Your task to perform on an android device: Show me some nice wallpapers for my phone Image 0: 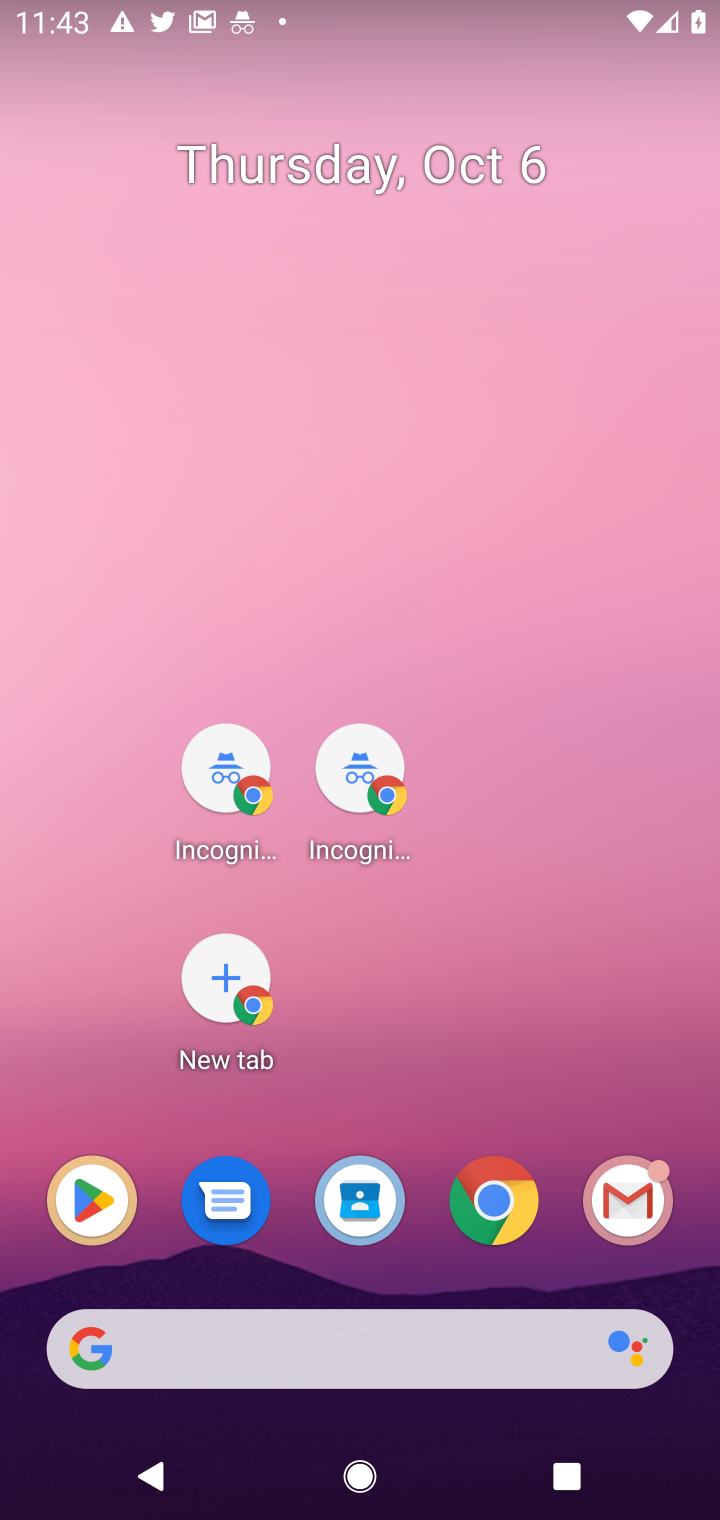
Step 0: click (492, 1198)
Your task to perform on an android device: Show me some nice wallpapers for my phone Image 1: 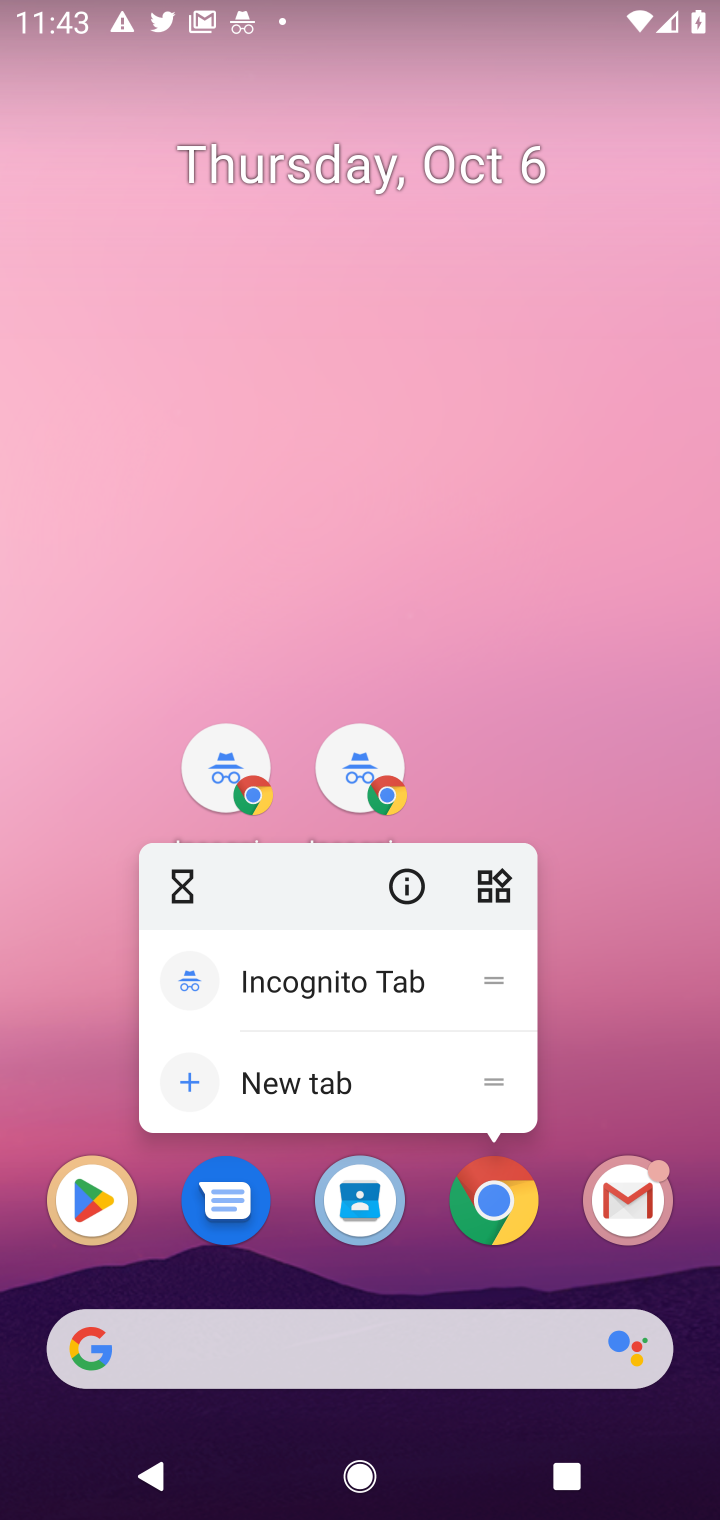
Step 1: press back button
Your task to perform on an android device: Show me some nice wallpapers for my phone Image 2: 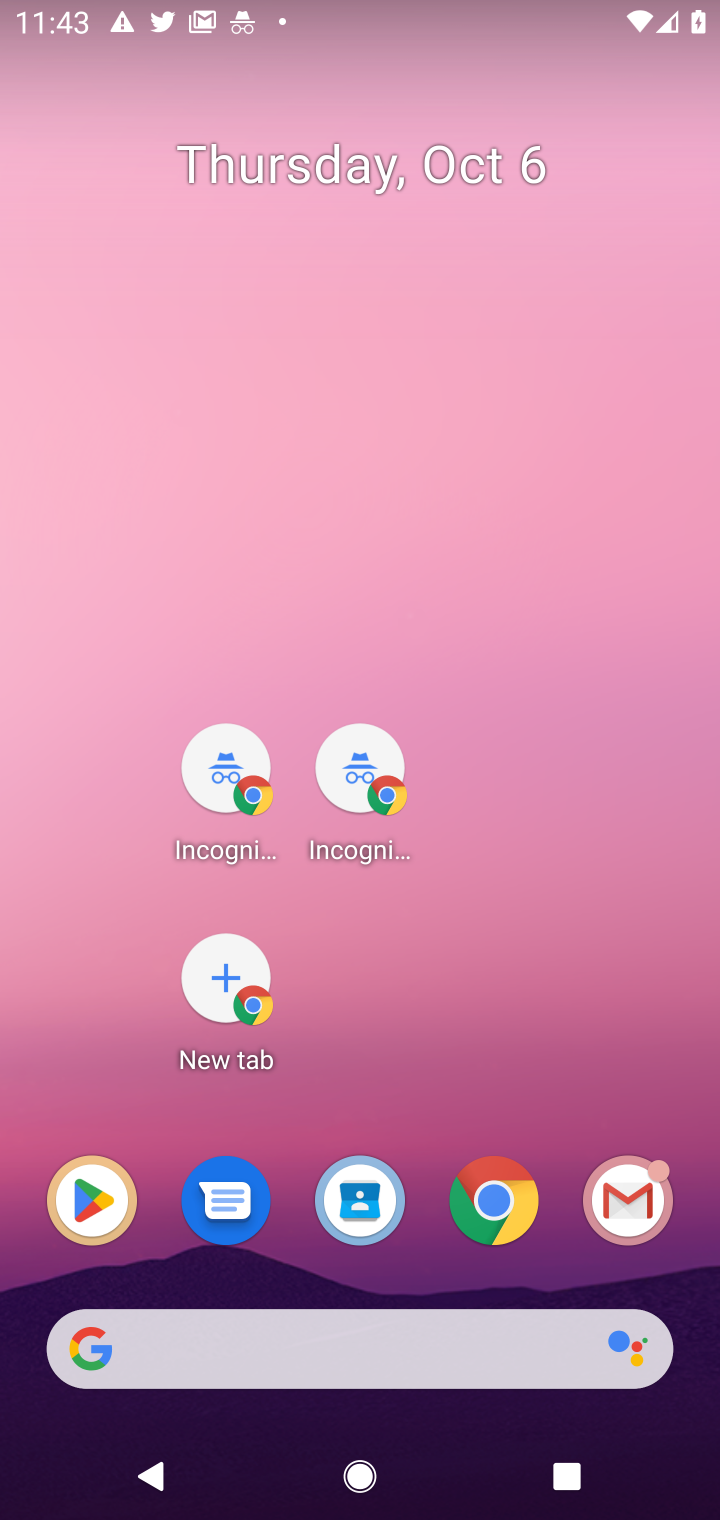
Step 2: press back button
Your task to perform on an android device: Show me some nice wallpapers for my phone Image 3: 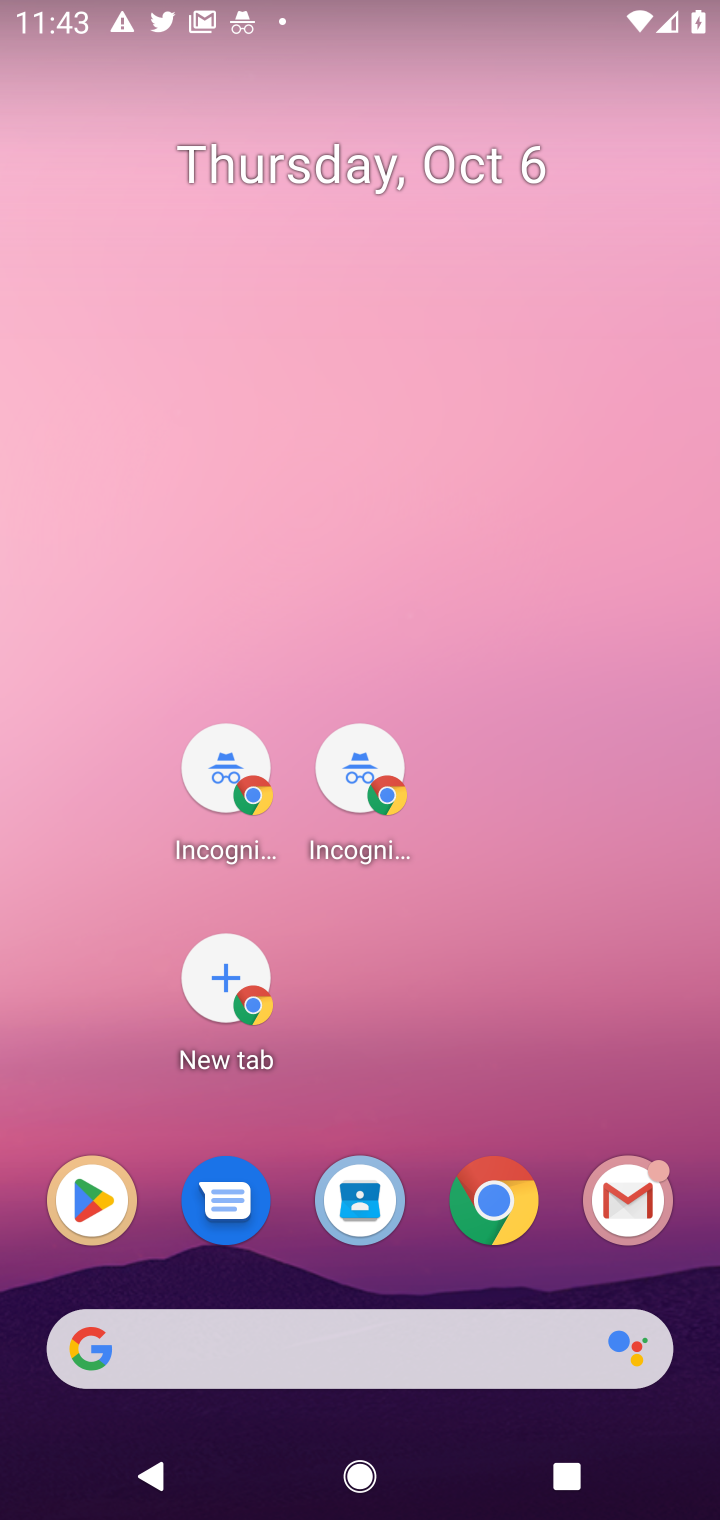
Step 3: press home button
Your task to perform on an android device: Show me some nice wallpapers for my phone Image 4: 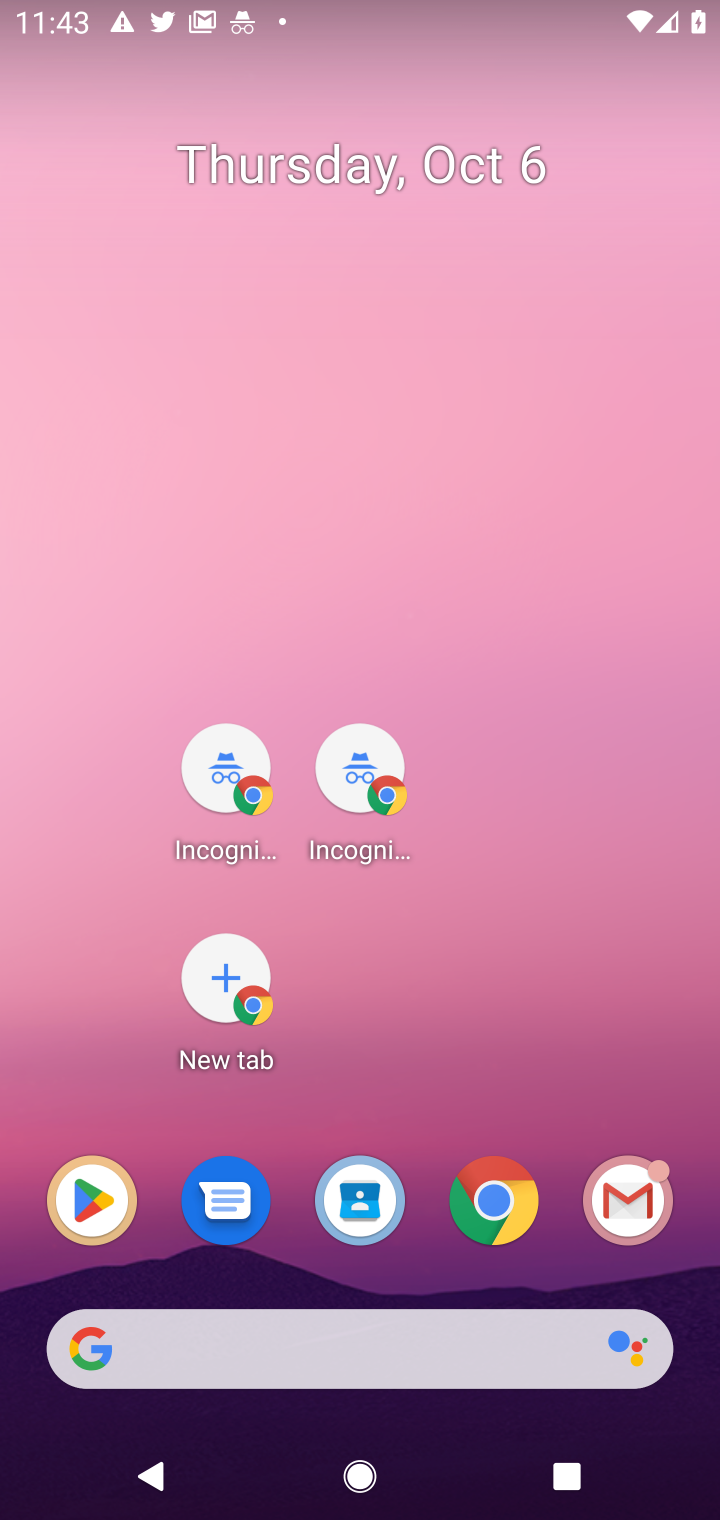
Step 4: press back button
Your task to perform on an android device: Show me some nice wallpapers for my phone Image 5: 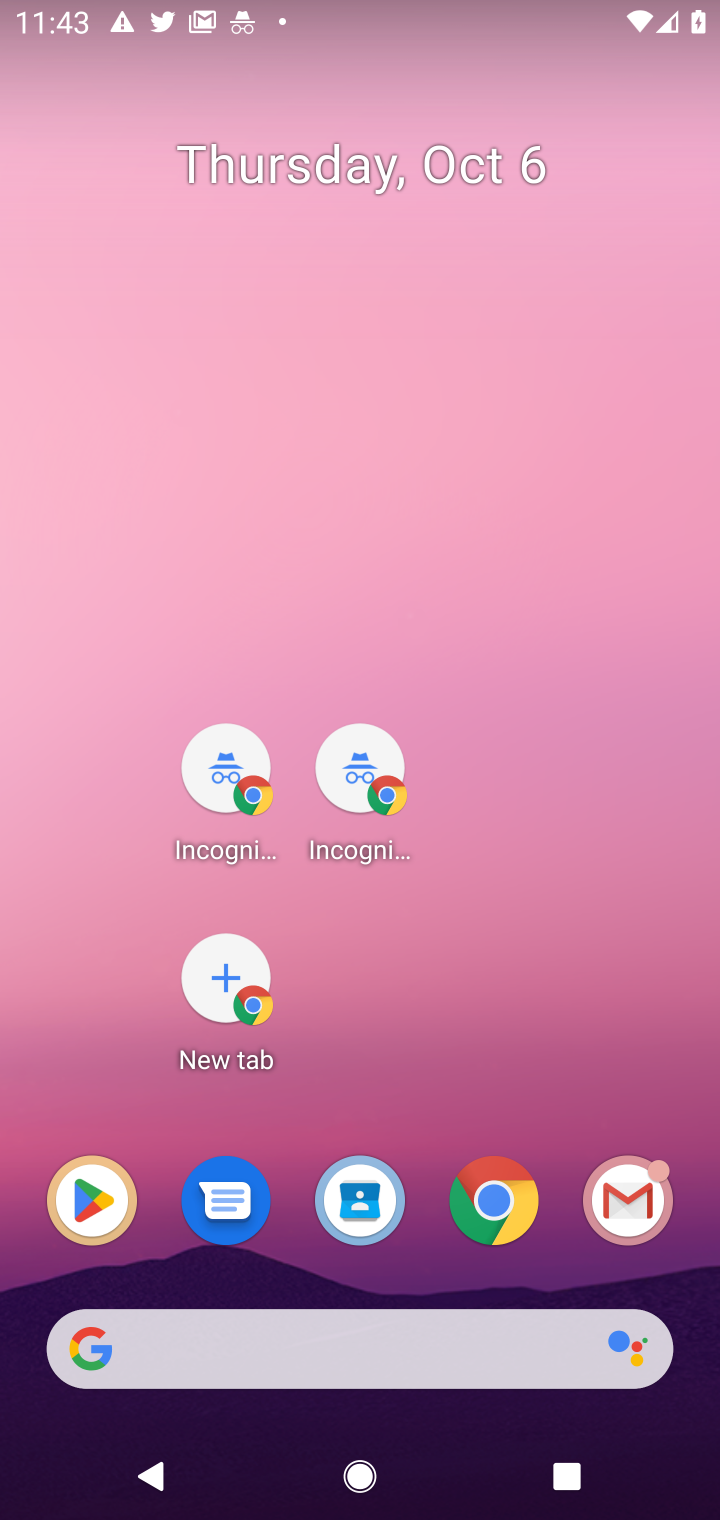
Step 5: click (518, 1189)
Your task to perform on an android device: Show me some nice wallpapers for my phone Image 6: 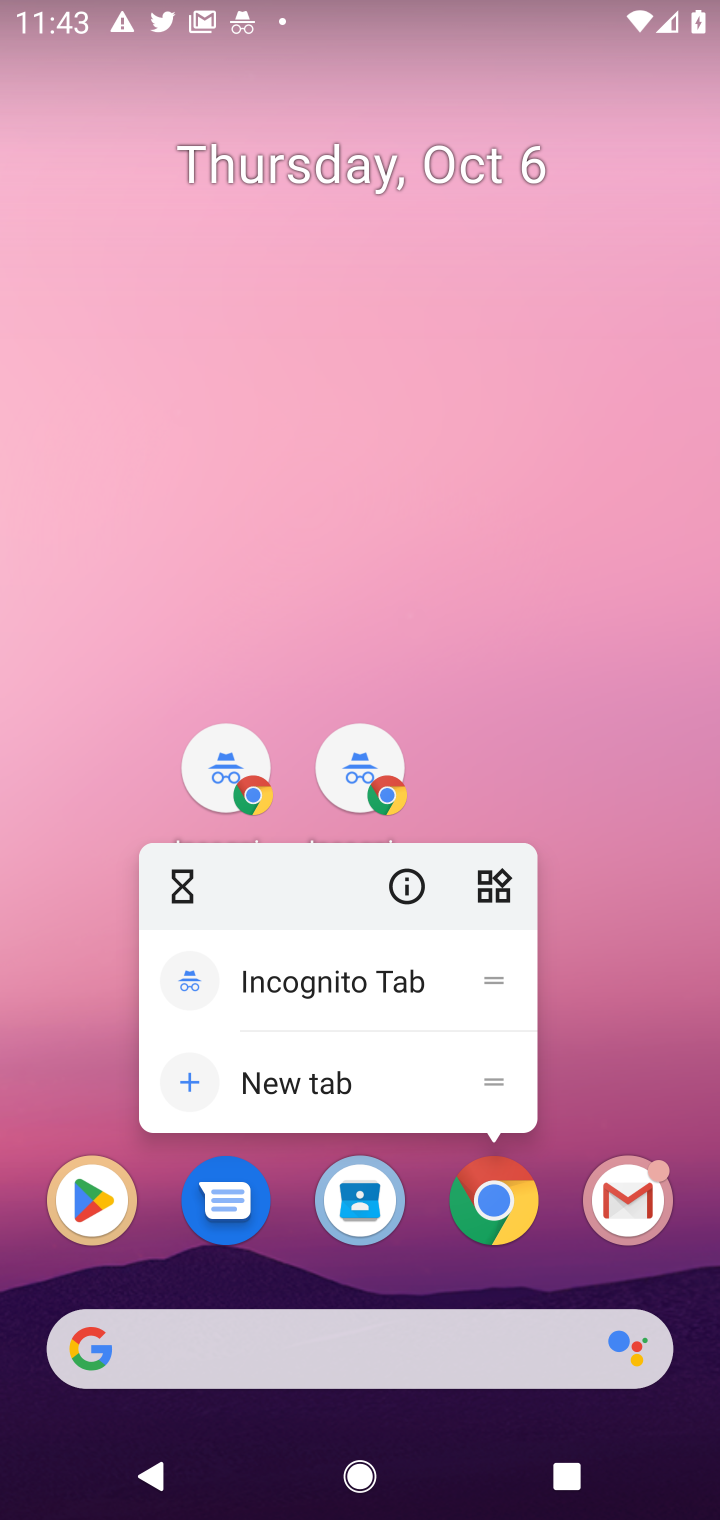
Step 6: press back button
Your task to perform on an android device: Show me some nice wallpapers for my phone Image 7: 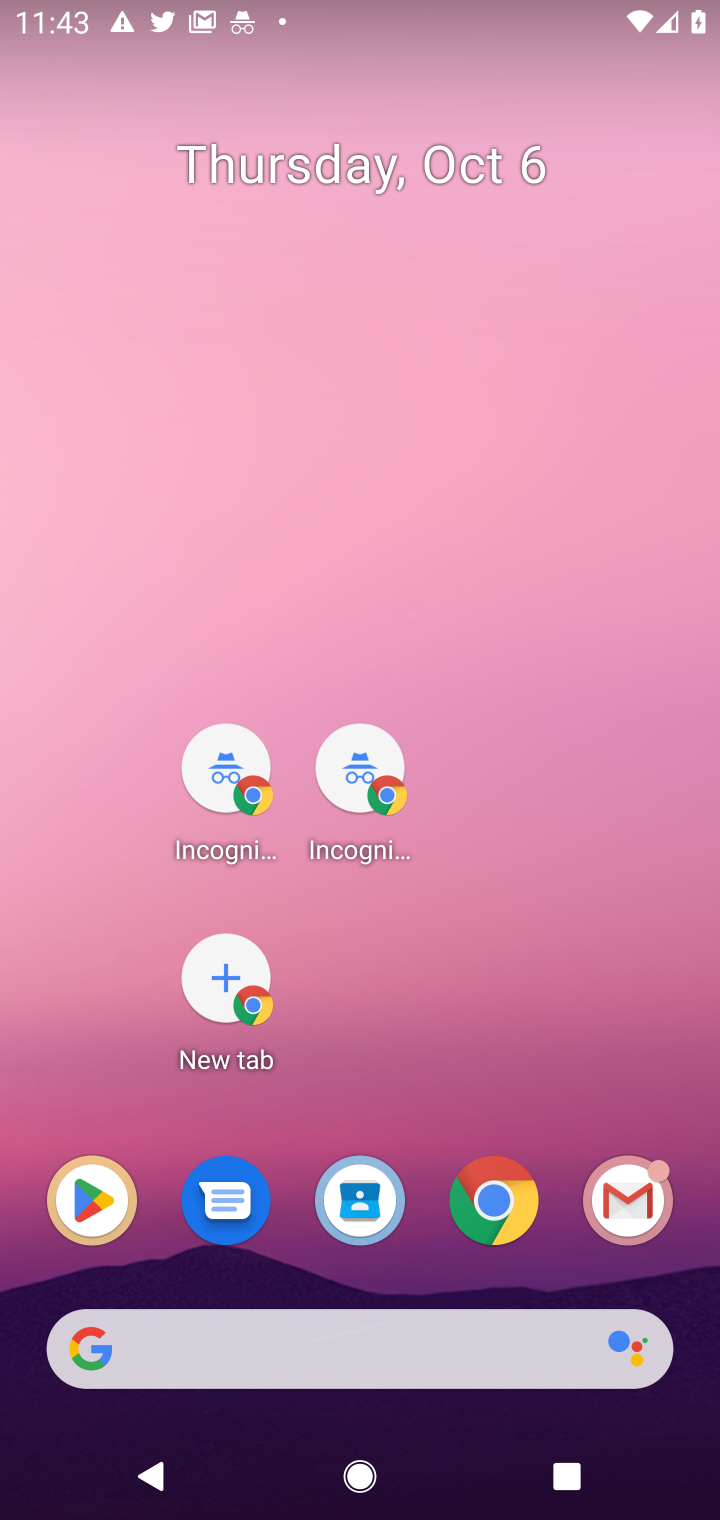
Step 7: press back button
Your task to perform on an android device: Show me some nice wallpapers for my phone Image 8: 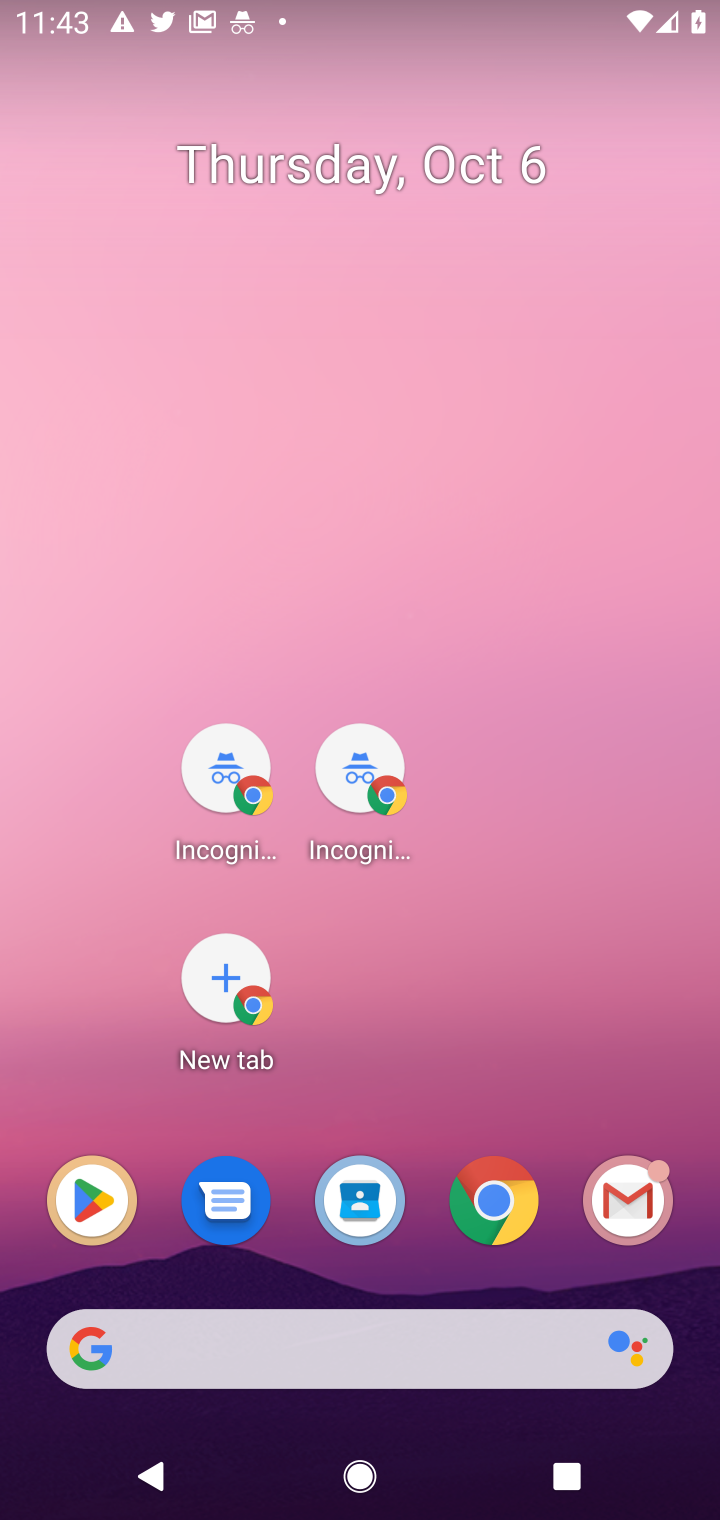
Step 8: press back button
Your task to perform on an android device: Show me some nice wallpapers for my phone Image 9: 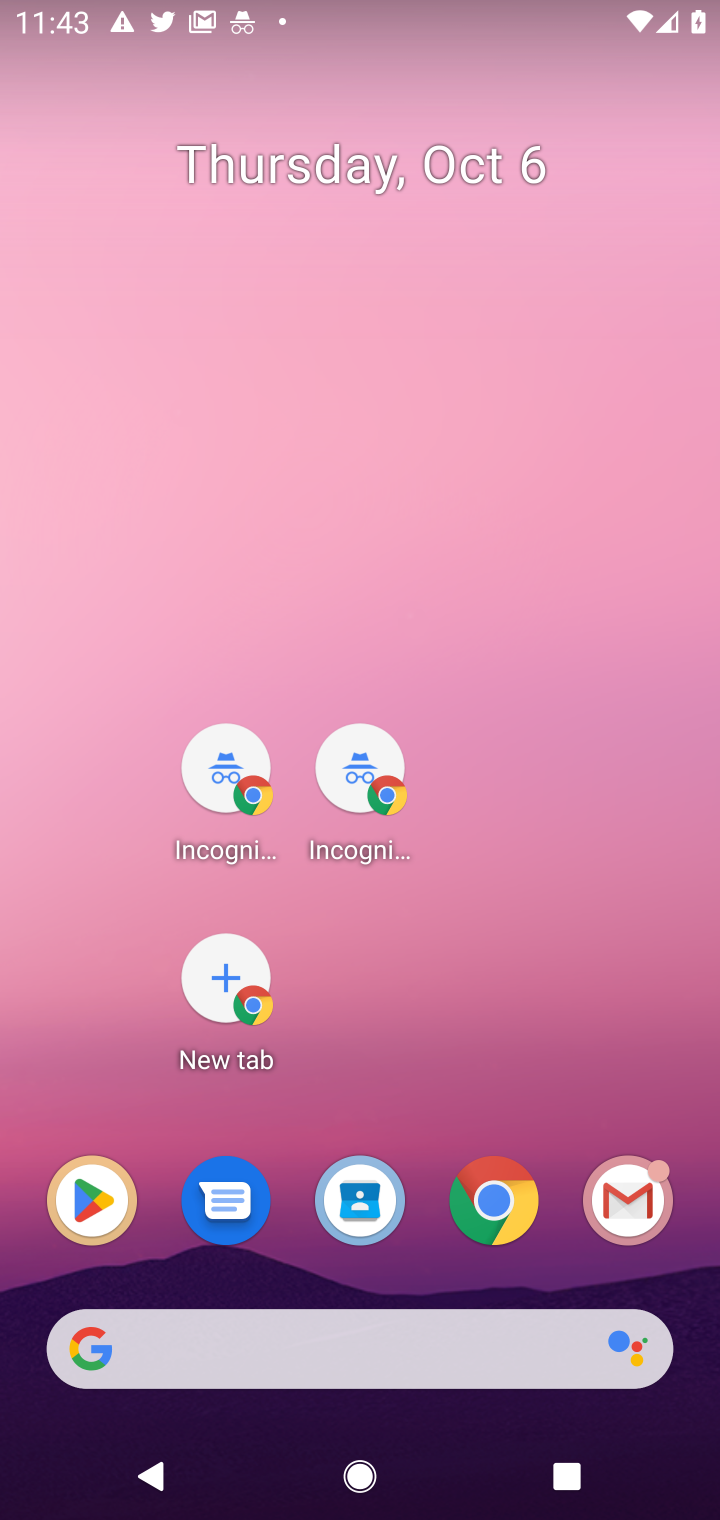
Step 9: click (529, 1190)
Your task to perform on an android device: Show me some nice wallpapers for my phone Image 10: 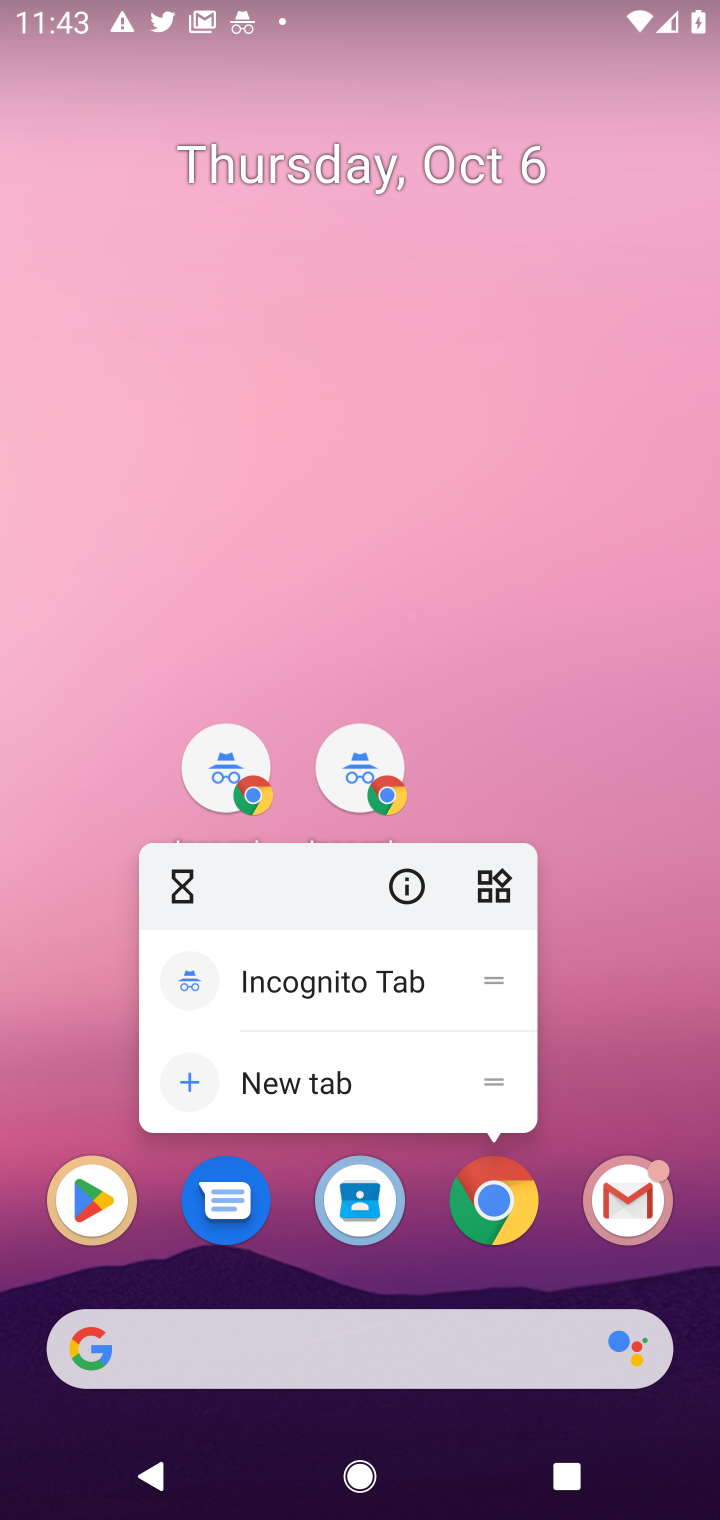
Step 10: click (520, 1190)
Your task to perform on an android device: Show me some nice wallpapers for my phone Image 11: 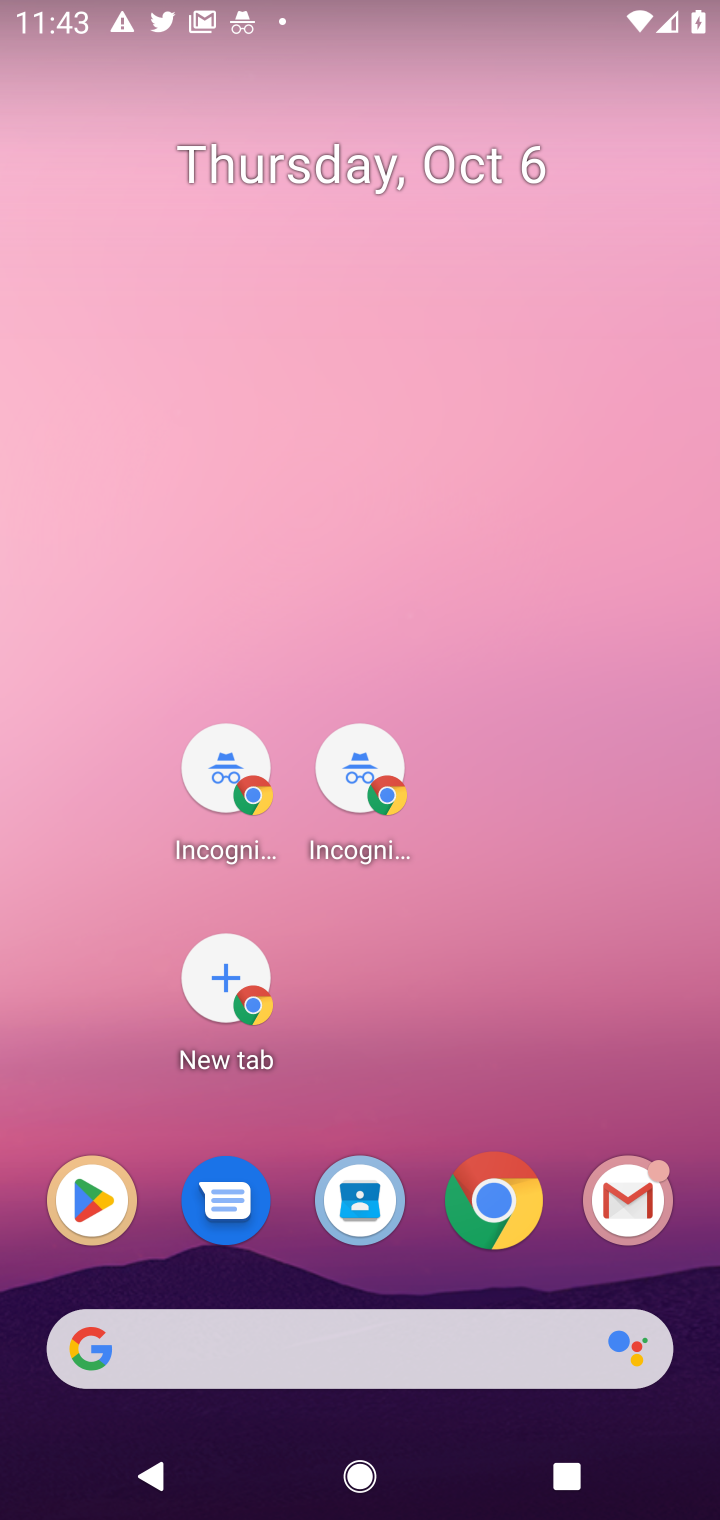
Step 11: press back button
Your task to perform on an android device: Show me some nice wallpapers for my phone Image 12: 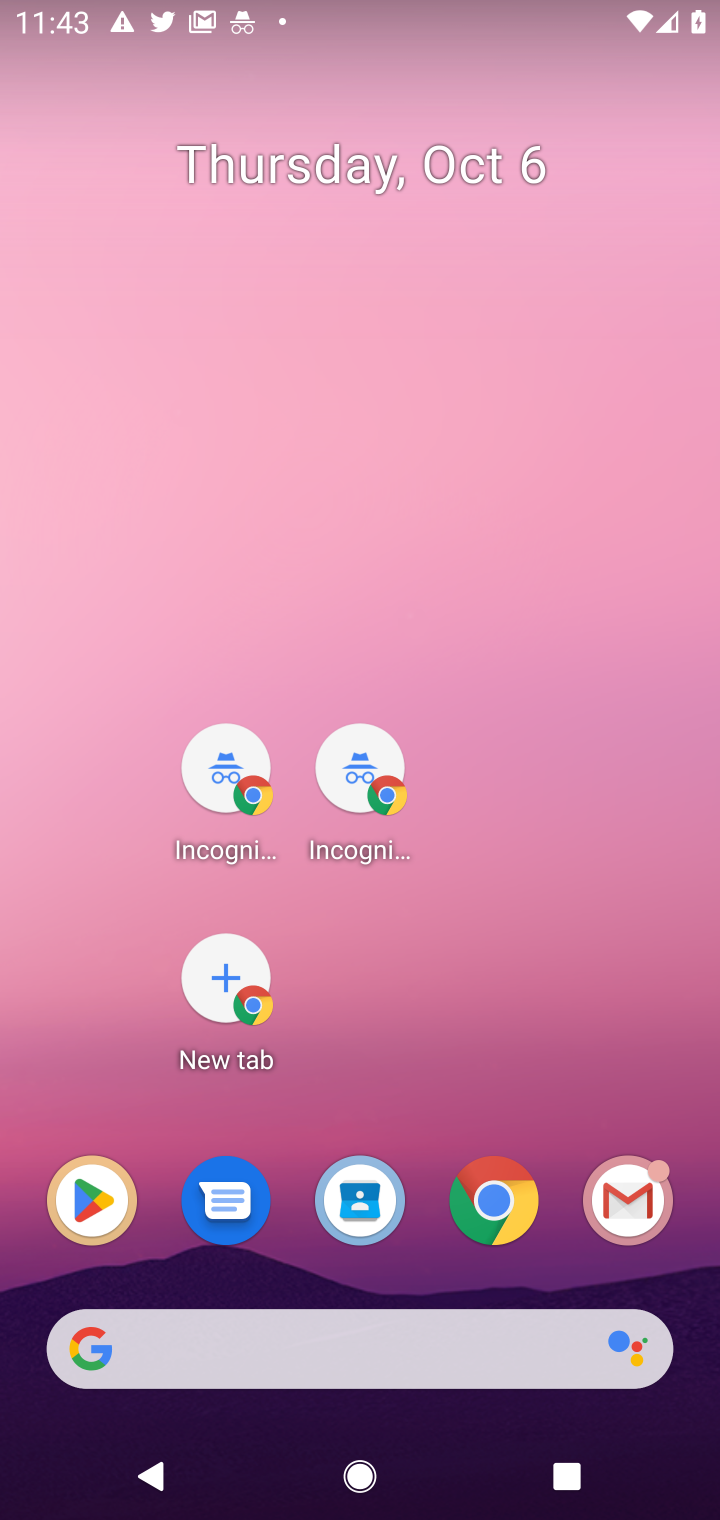
Step 12: press back button
Your task to perform on an android device: Show me some nice wallpapers for my phone Image 13: 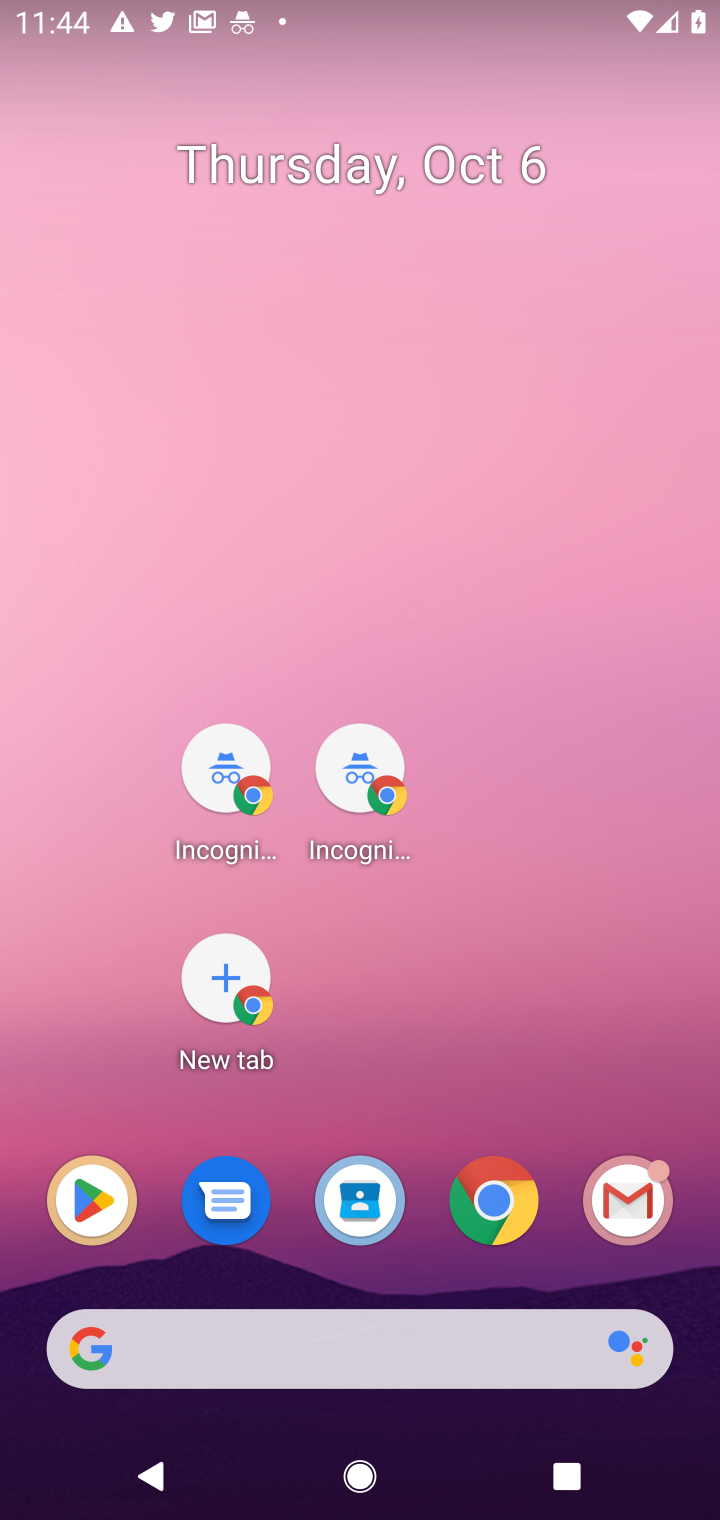
Step 13: press back button
Your task to perform on an android device: Show me some nice wallpapers for my phone Image 14: 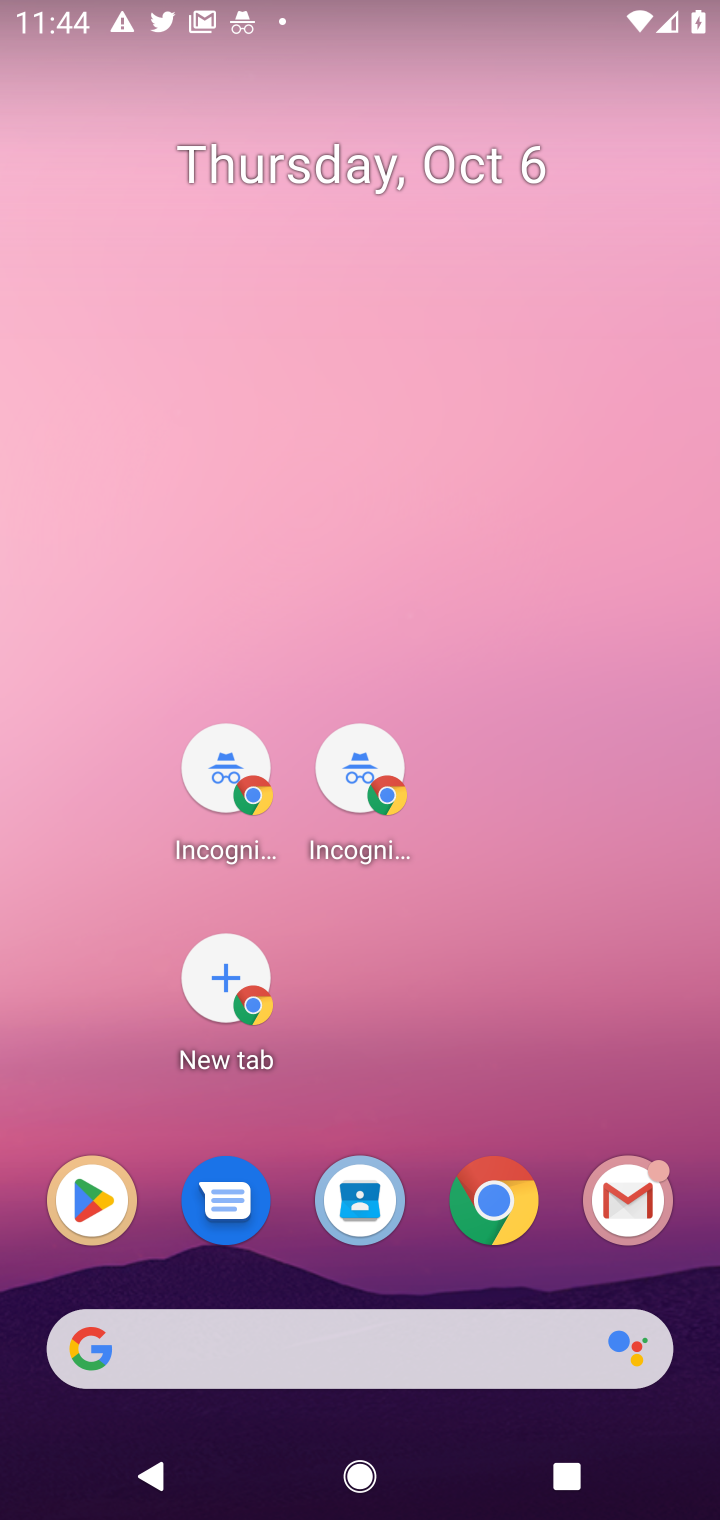
Step 14: press back button
Your task to perform on an android device: Show me some nice wallpapers for my phone Image 15: 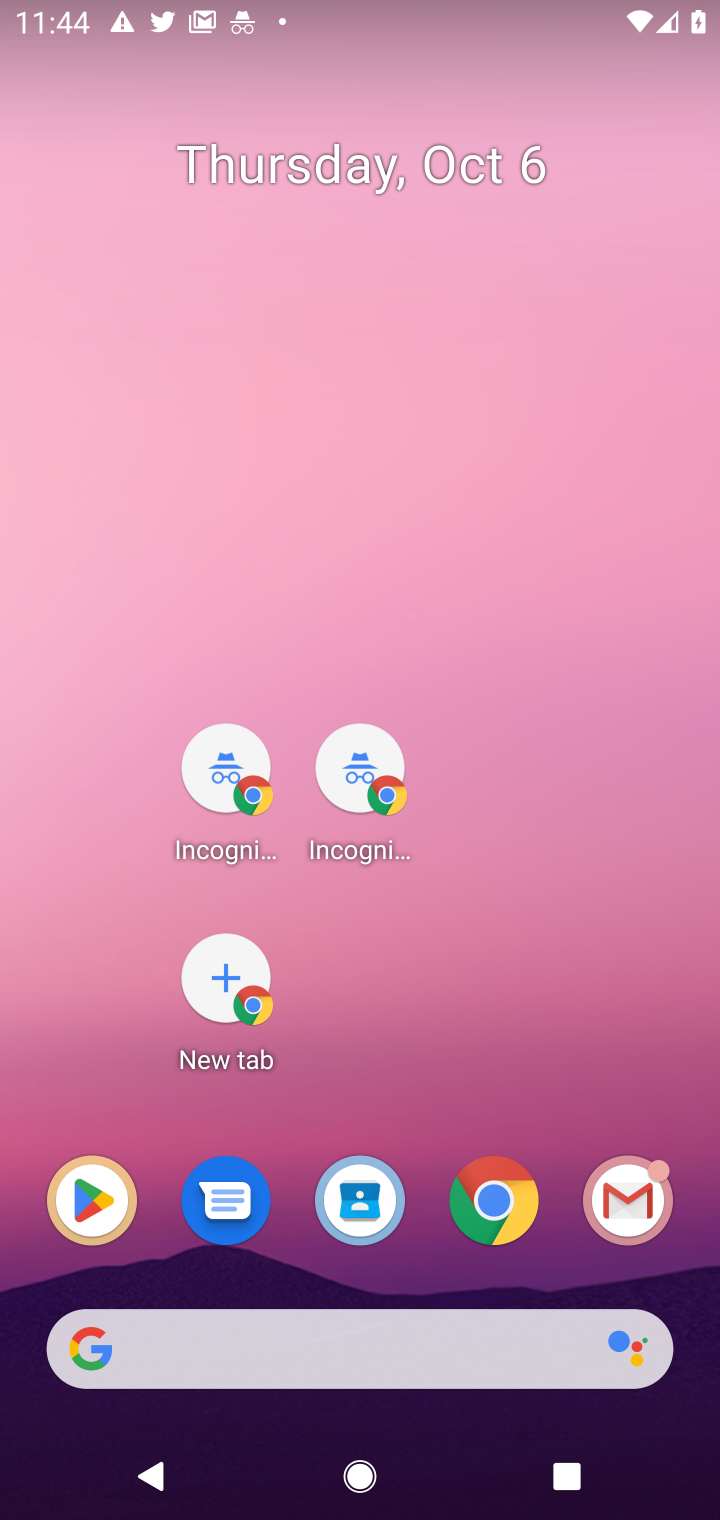
Step 15: click (509, 1194)
Your task to perform on an android device: Show me some nice wallpapers for my phone Image 16: 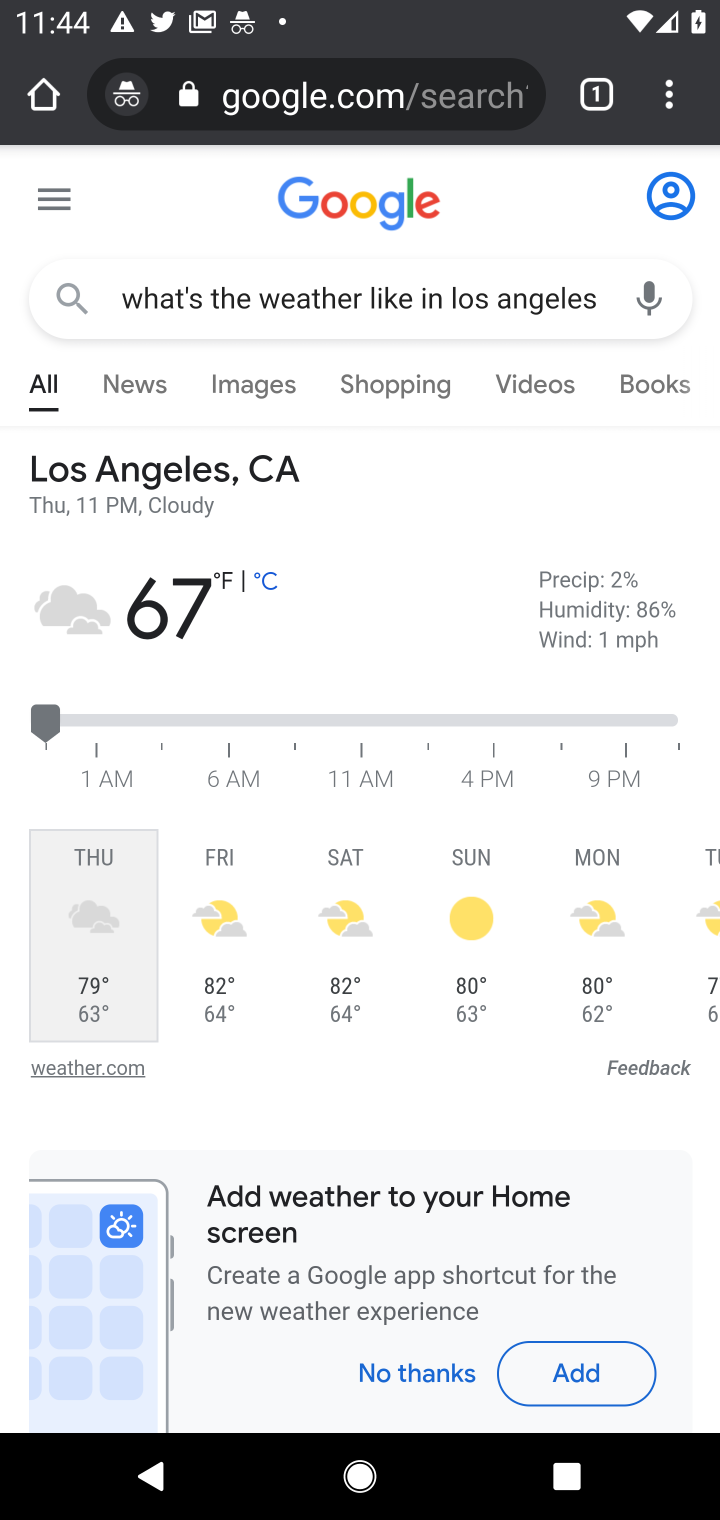
Step 16: click (317, 91)
Your task to perform on an android device: Show me some nice wallpapers for my phone Image 17: 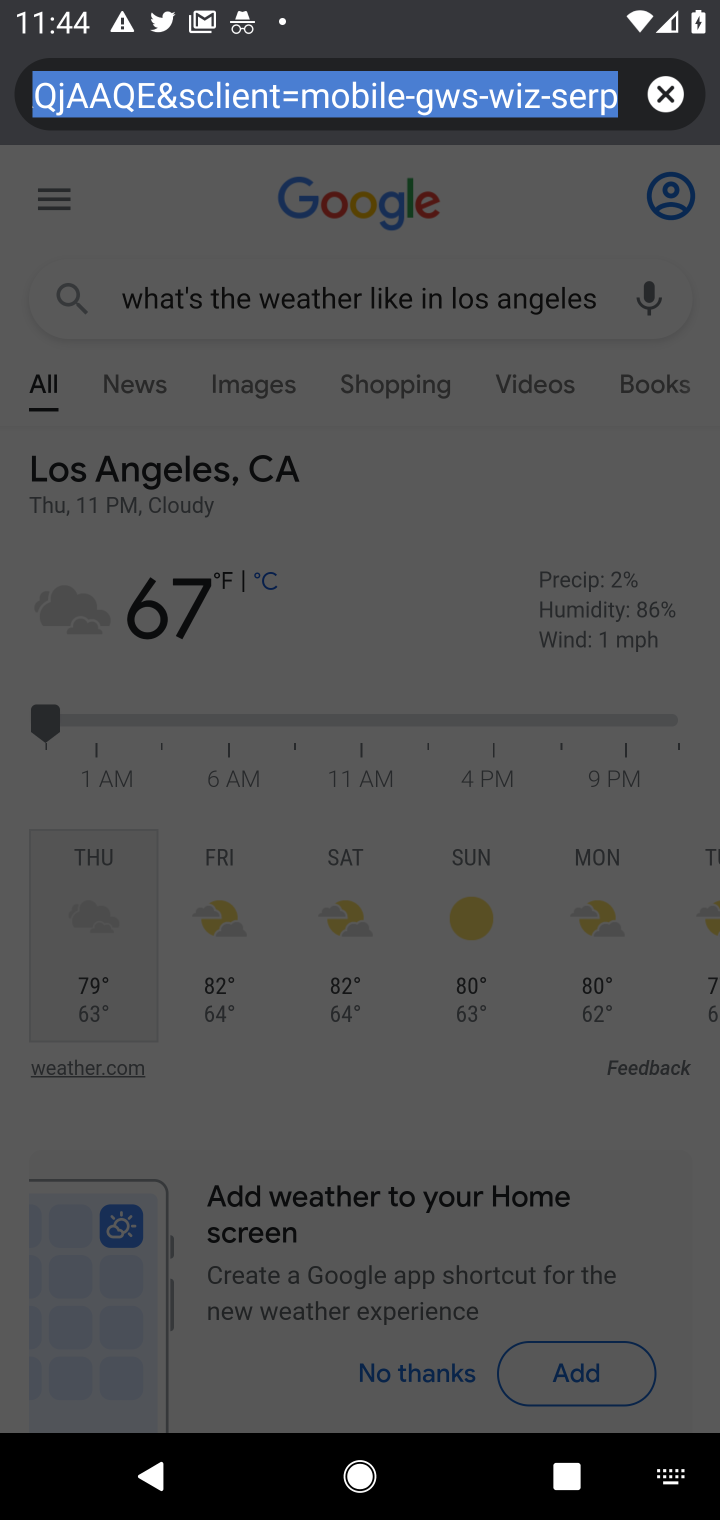
Step 17: click (664, 105)
Your task to perform on an android device: Show me some nice wallpapers for my phone Image 18: 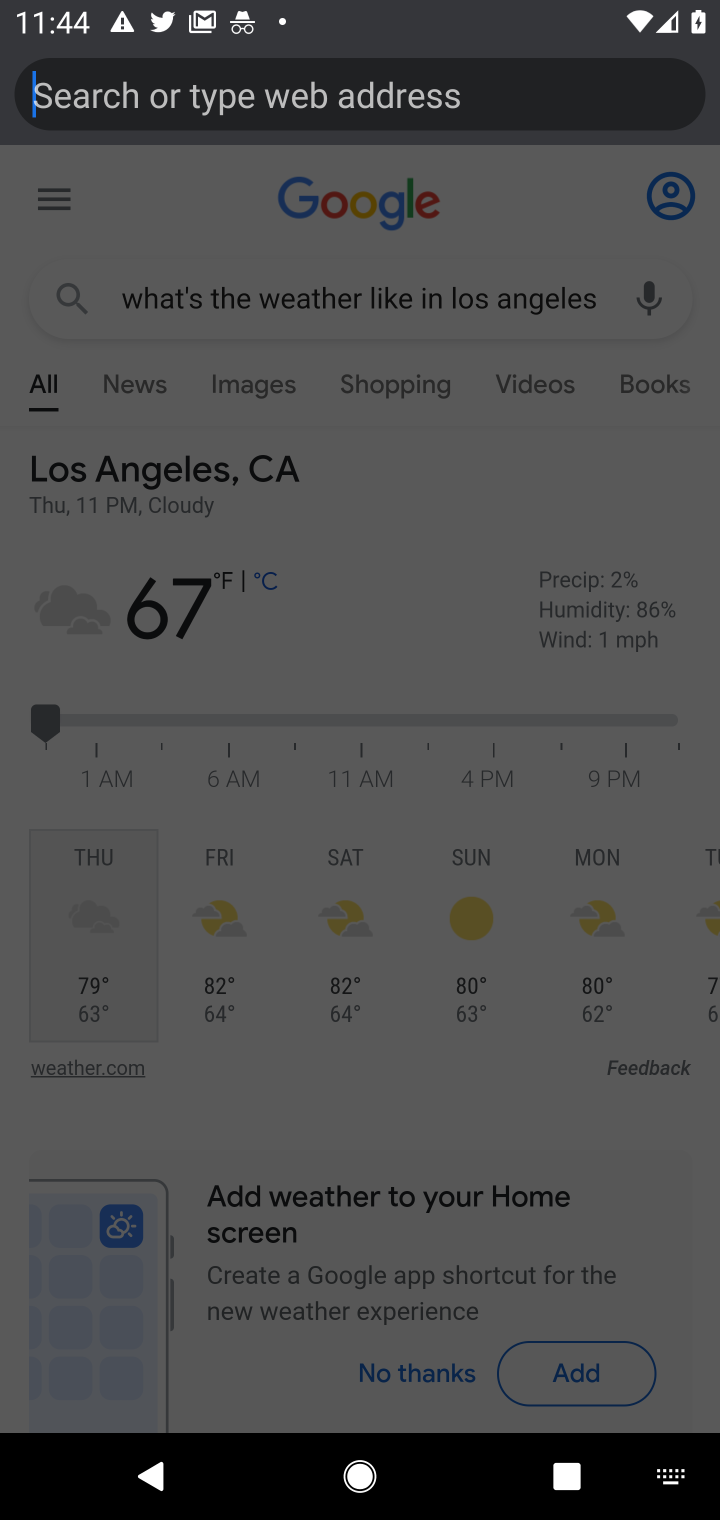
Step 18: type "nice wallpaper for my phone"
Your task to perform on an android device: Show me some nice wallpapers for my phone Image 19: 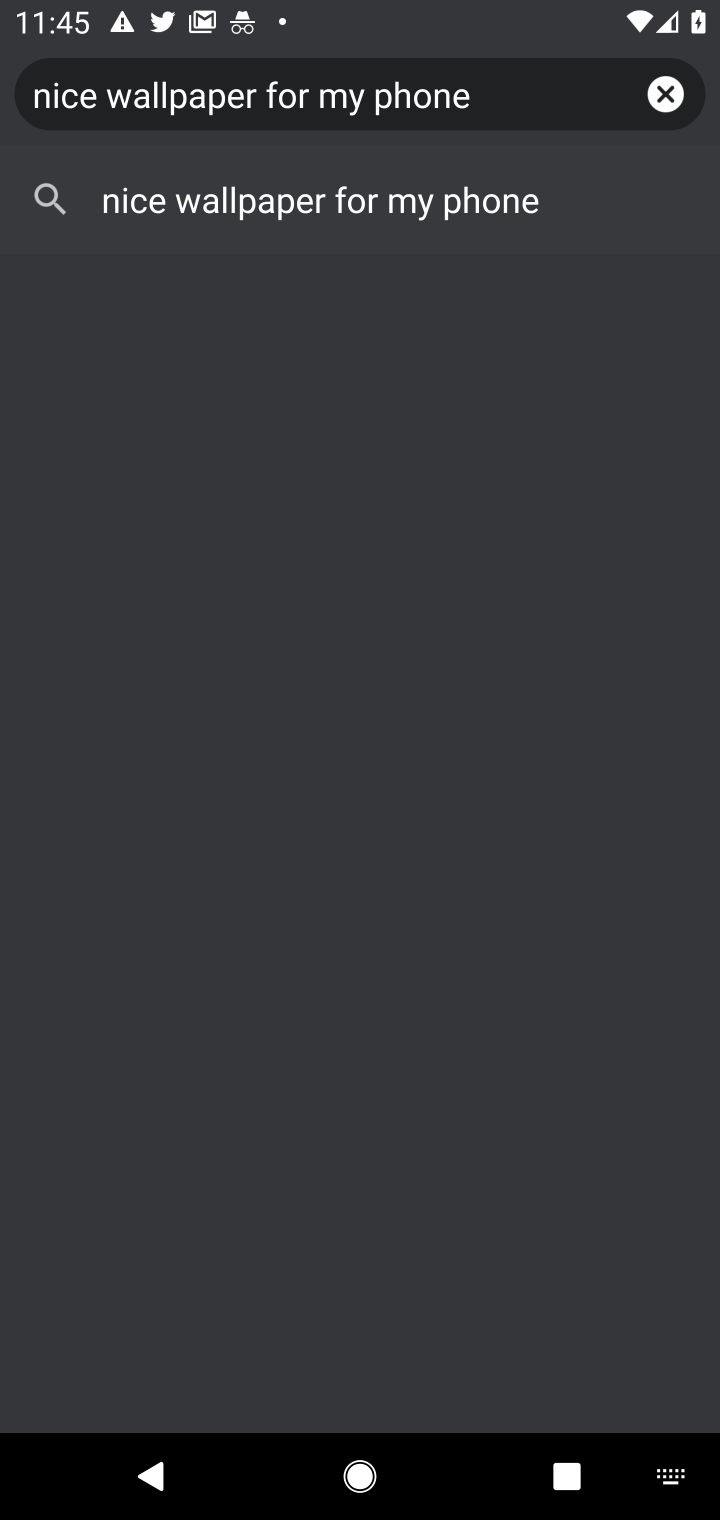
Step 19: click (364, 206)
Your task to perform on an android device: Show me some nice wallpapers for my phone Image 20: 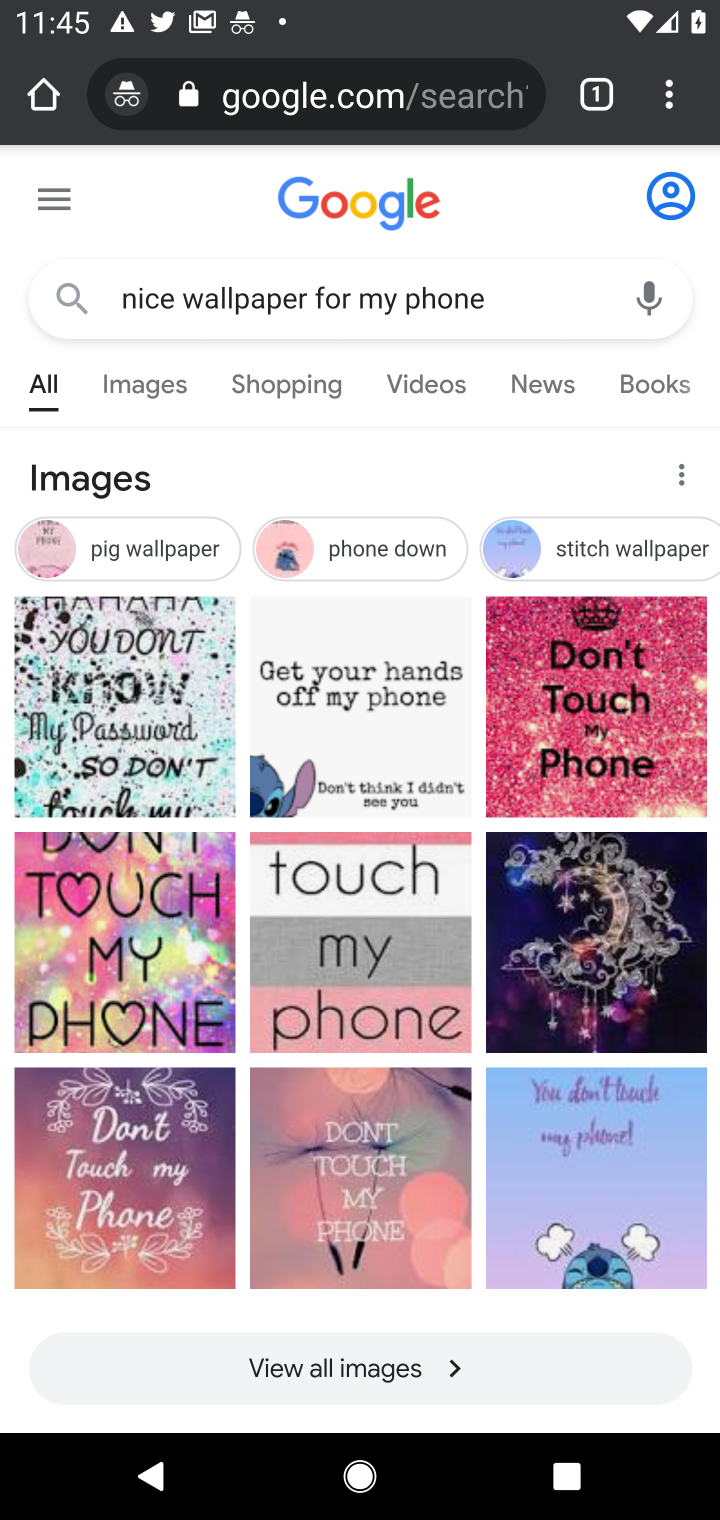
Step 20: drag from (405, 1142) to (531, 598)
Your task to perform on an android device: Show me some nice wallpapers for my phone Image 21: 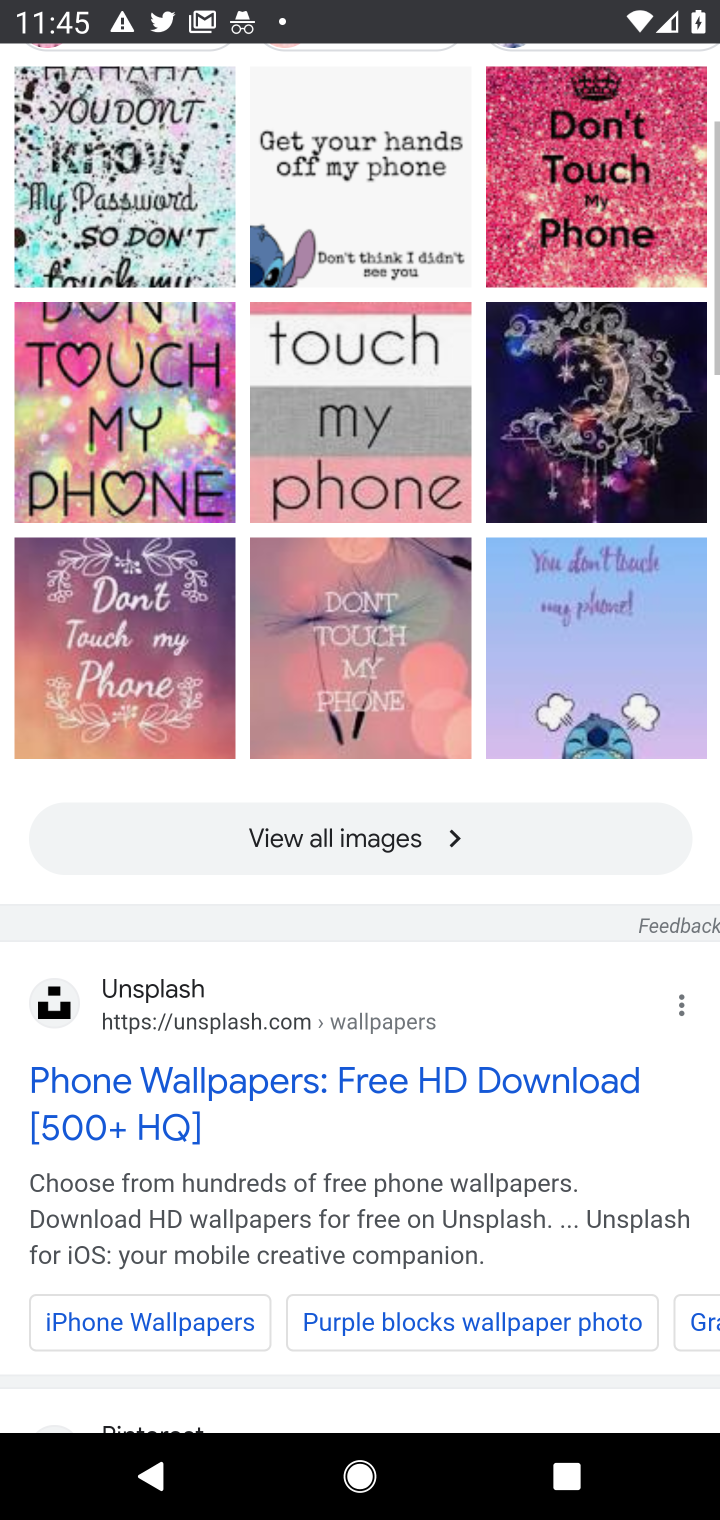
Step 21: drag from (378, 789) to (403, 634)
Your task to perform on an android device: Show me some nice wallpapers for my phone Image 22: 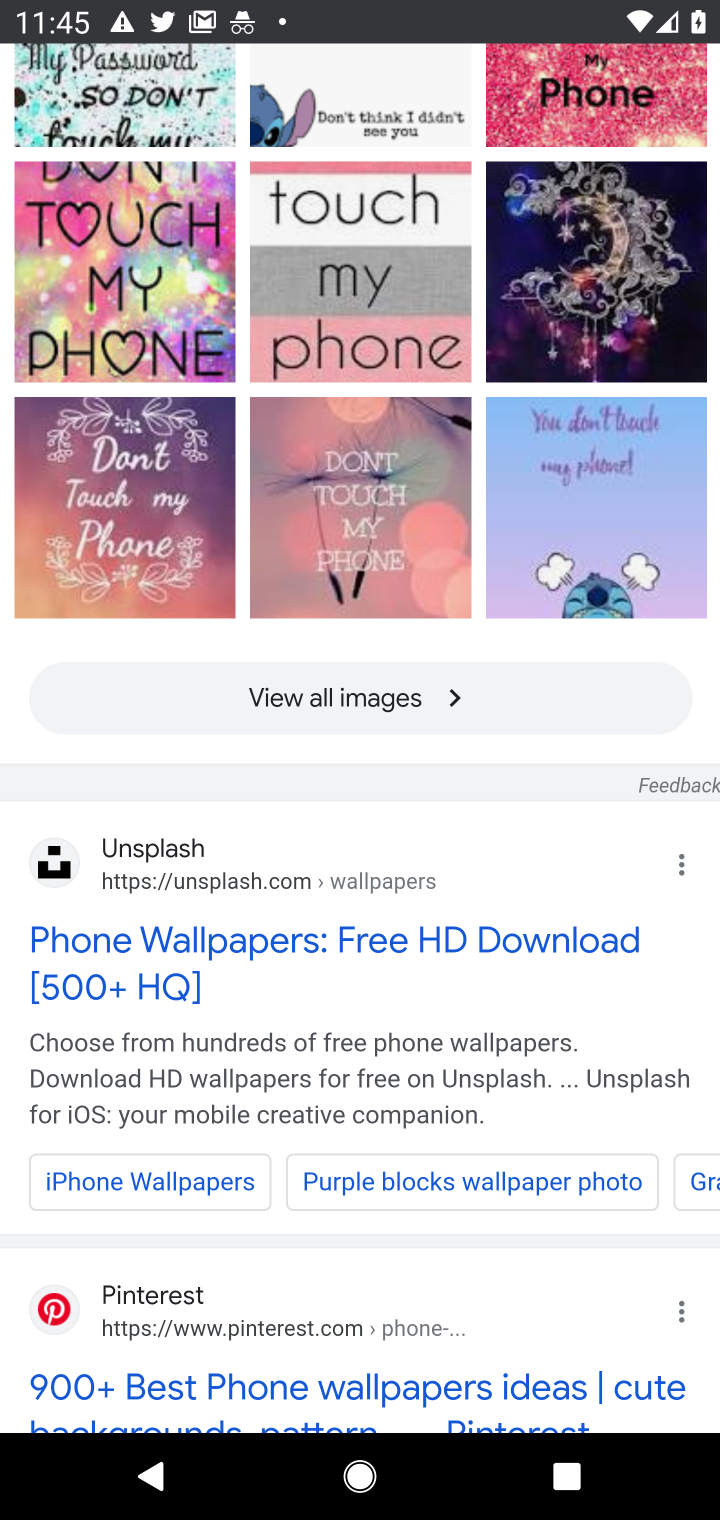
Step 22: drag from (306, 960) to (353, 667)
Your task to perform on an android device: Show me some nice wallpapers for my phone Image 23: 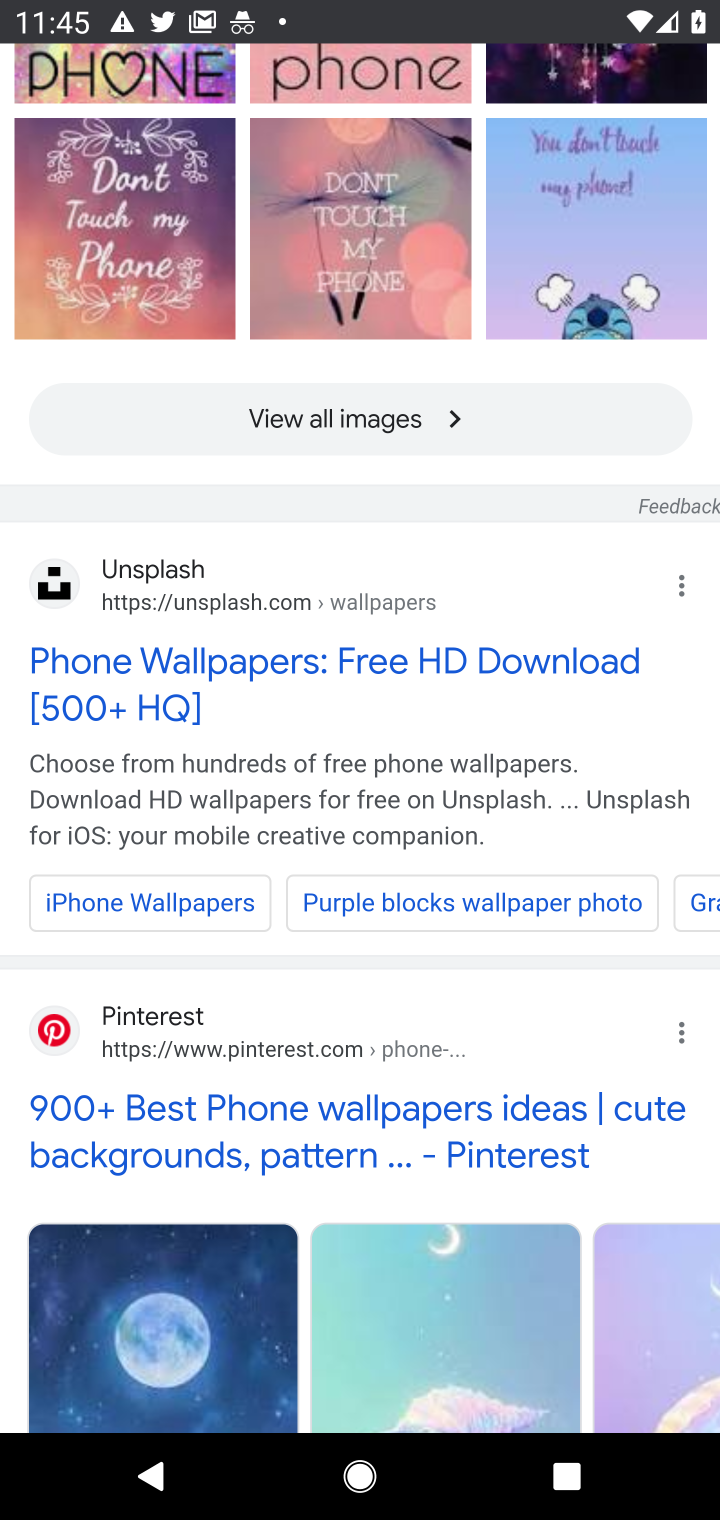
Step 23: drag from (346, 978) to (367, 627)
Your task to perform on an android device: Show me some nice wallpapers for my phone Image 24: 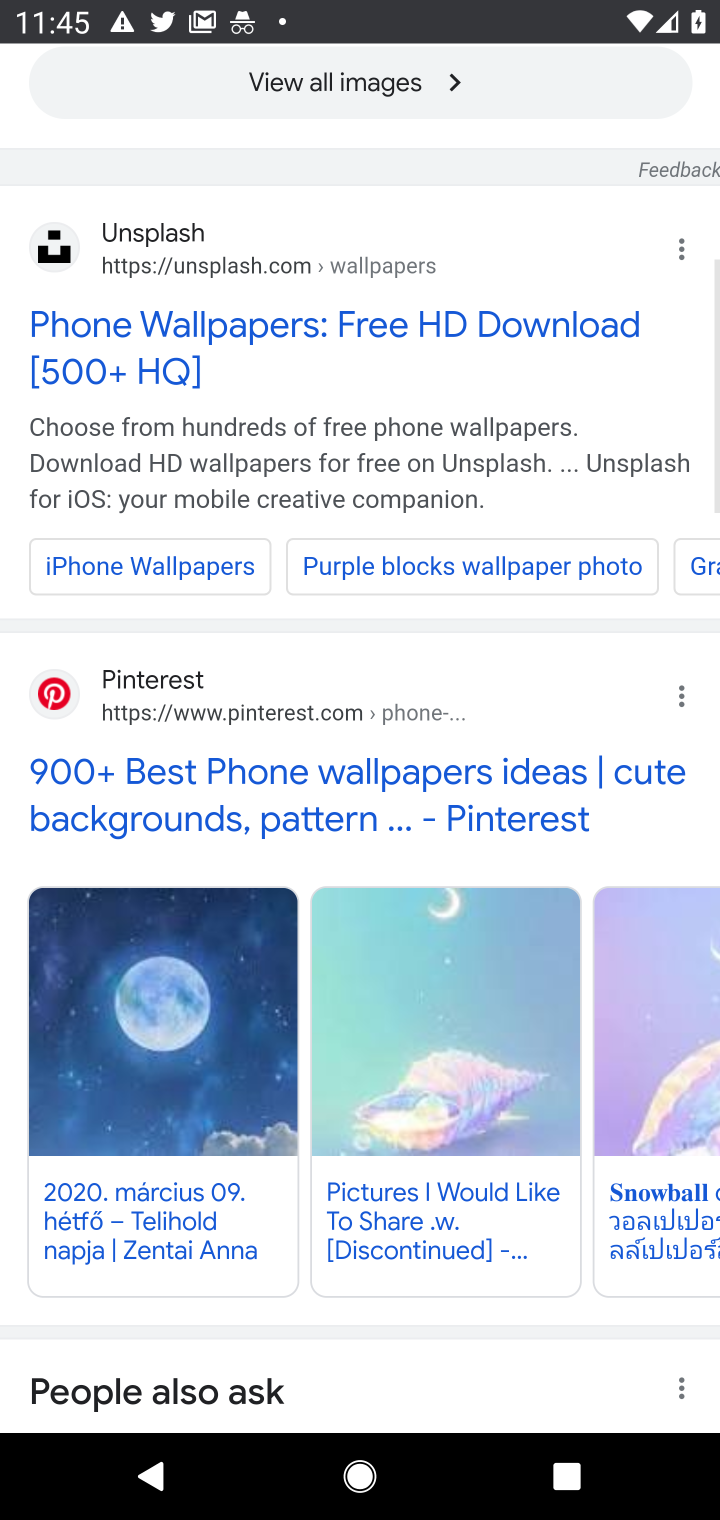
Step 24: drag from (289, 1290) to (376, 702)
Your task to perform on an android device: Show me some nice wallpapers for my phone Image 25: 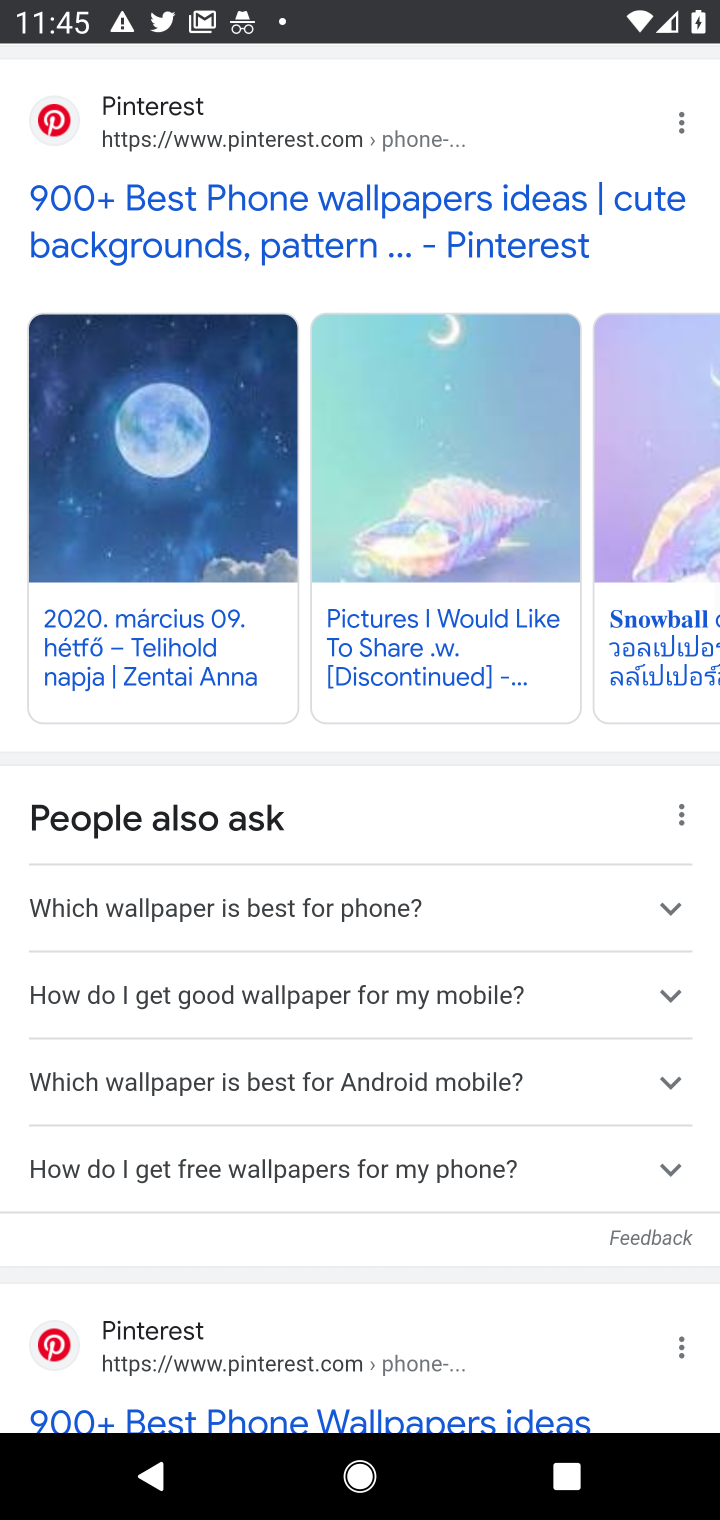
Step 25: click (393, 481)
Your task to perform on an android device: Show me some nice wallpapers for my phone Image 26: 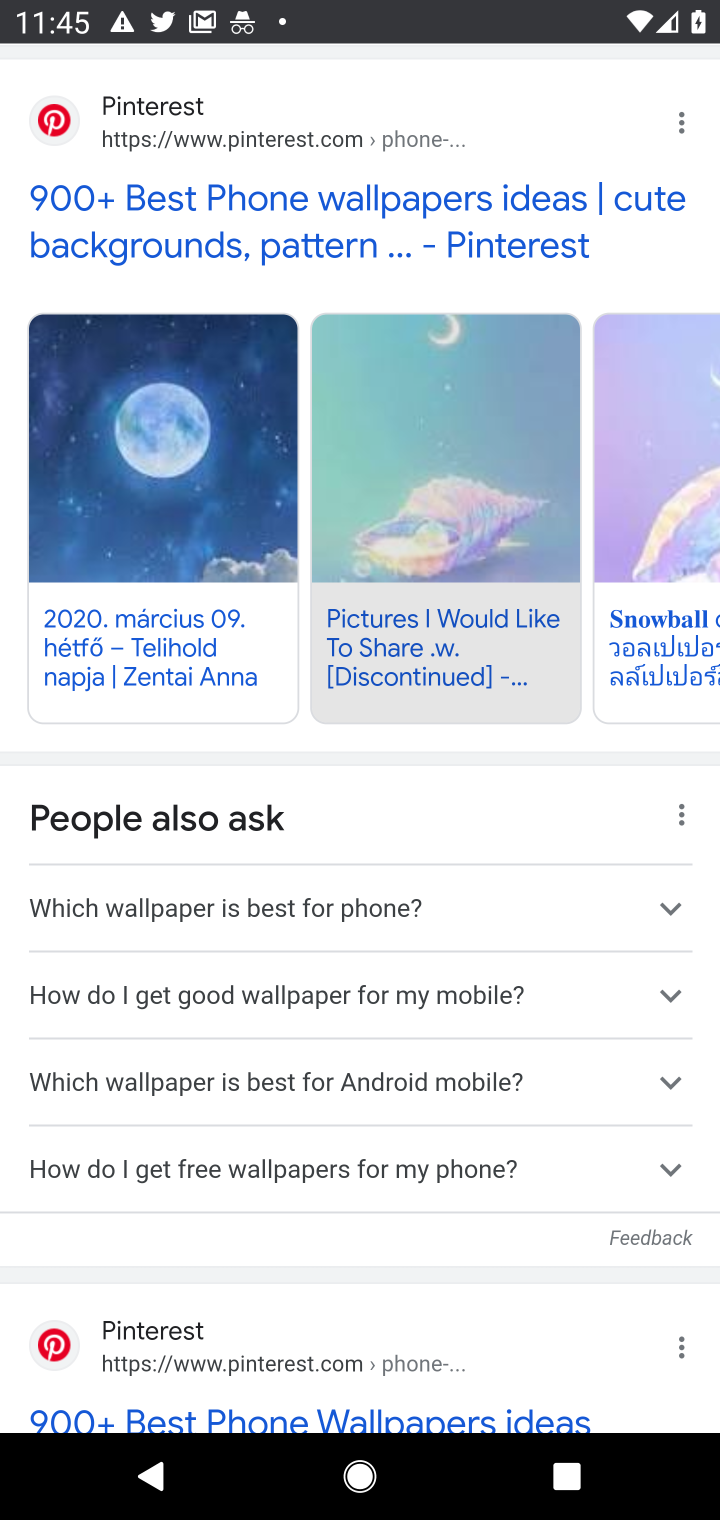
Step 26: task complete